Your task to perform on an android device: Go to ESPN.com Image 0: 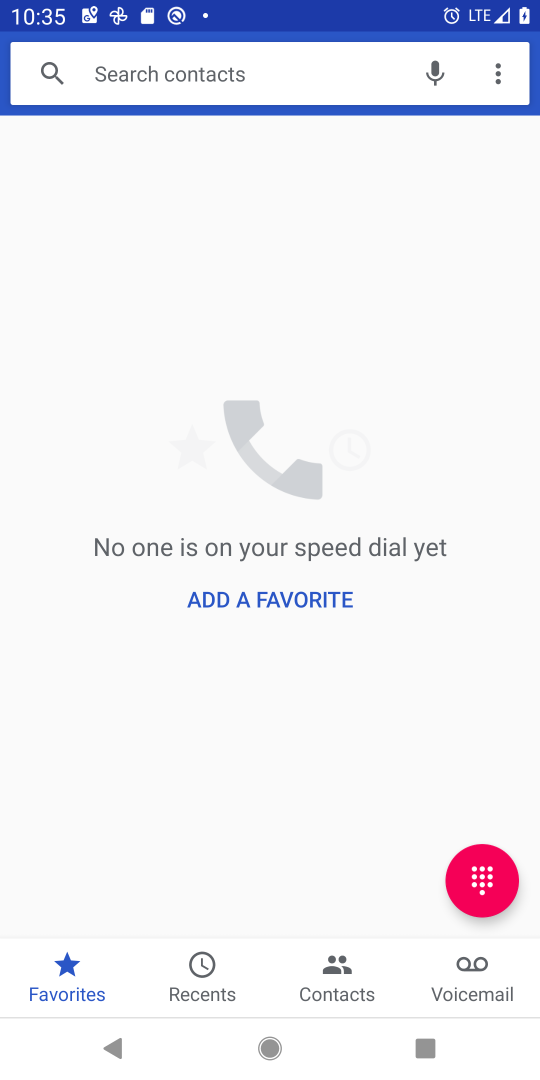
Step 0: press home button
Your task to perform on an android device: Go to ESPN.com Image 1: 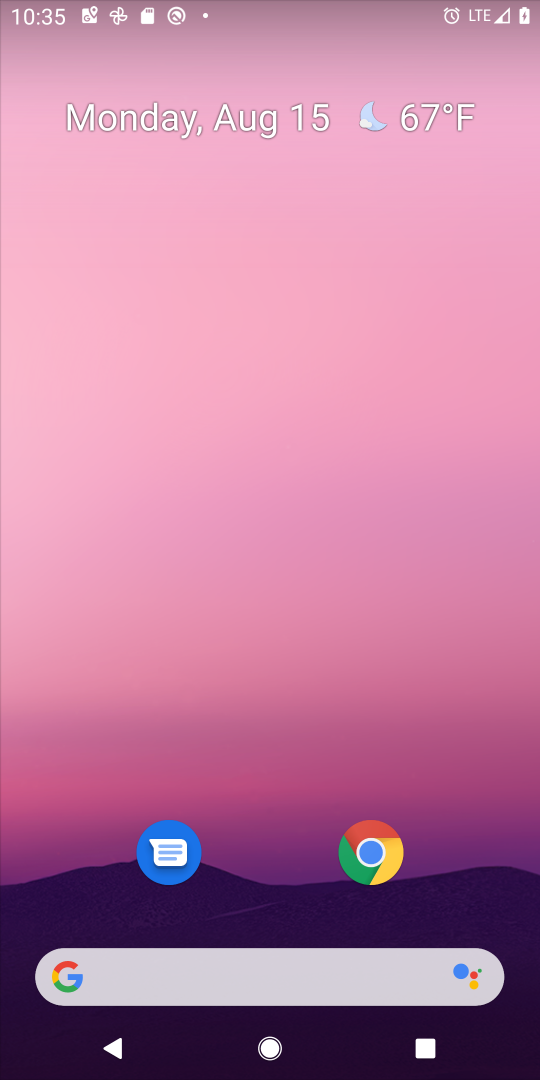
Step 1: click (371, 859)
Your task to perform on an android device: Go to ESPN.com Image 2: 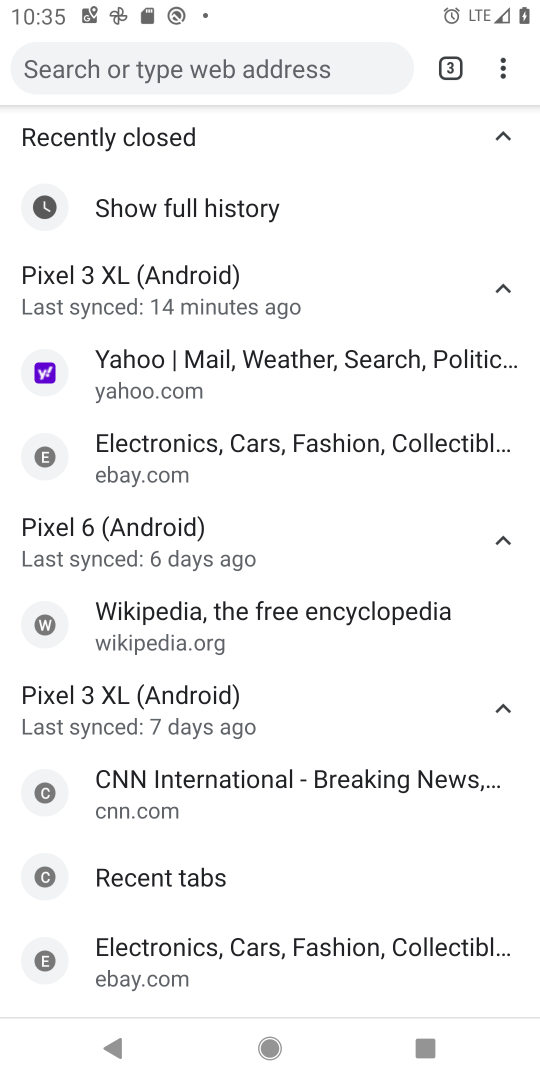
Step 2: click (336, 75)
Your task to perform on an android device: Go to ESPN.com Image 3: 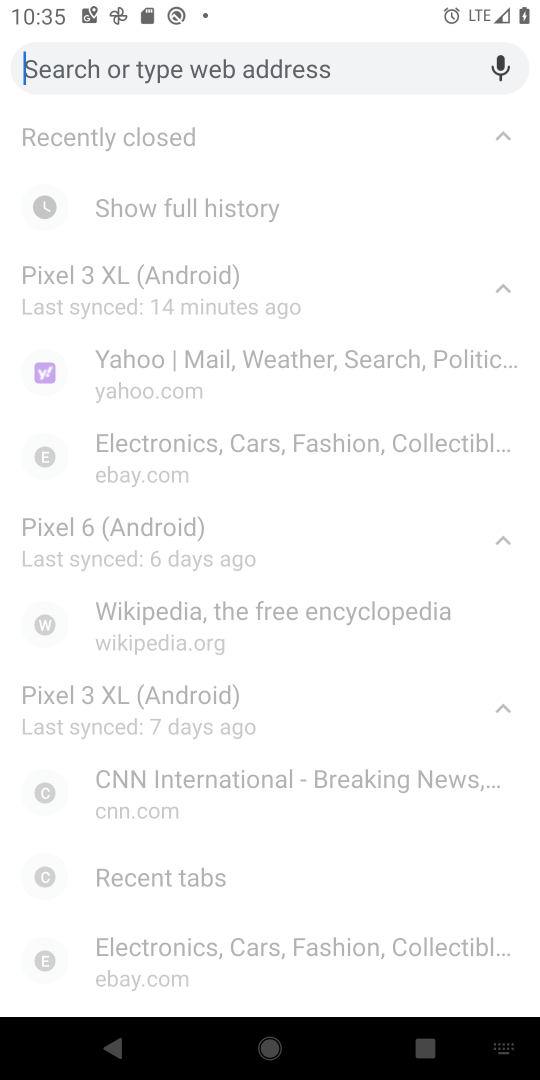
Step 3: type "ESPN.com"
Your task to perform on an android device: Go to ESPN.com Image 4: 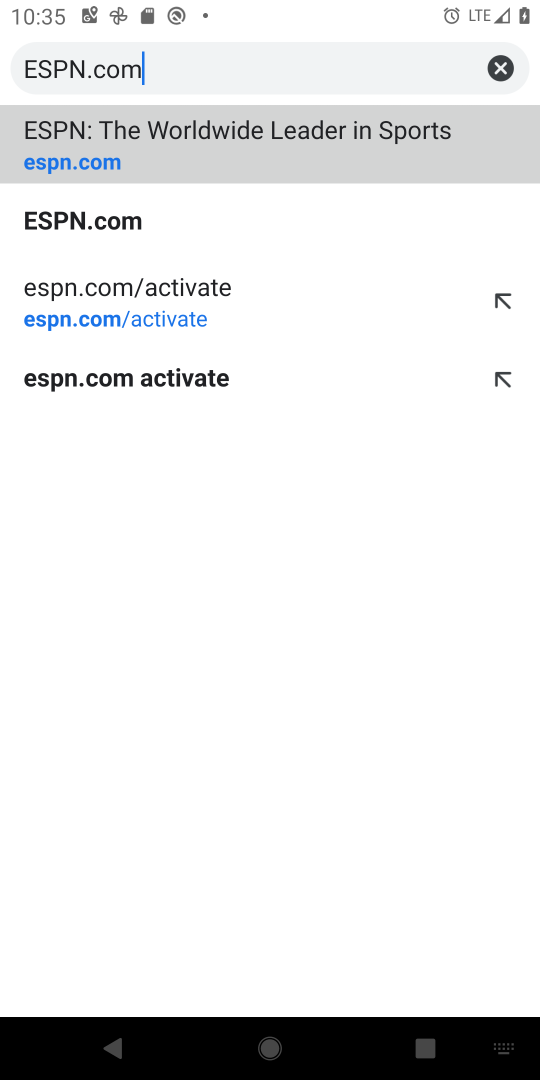
Step 4: click (109, 221)
Your task to perform on an android device: Go to ESPN.com Image 5: 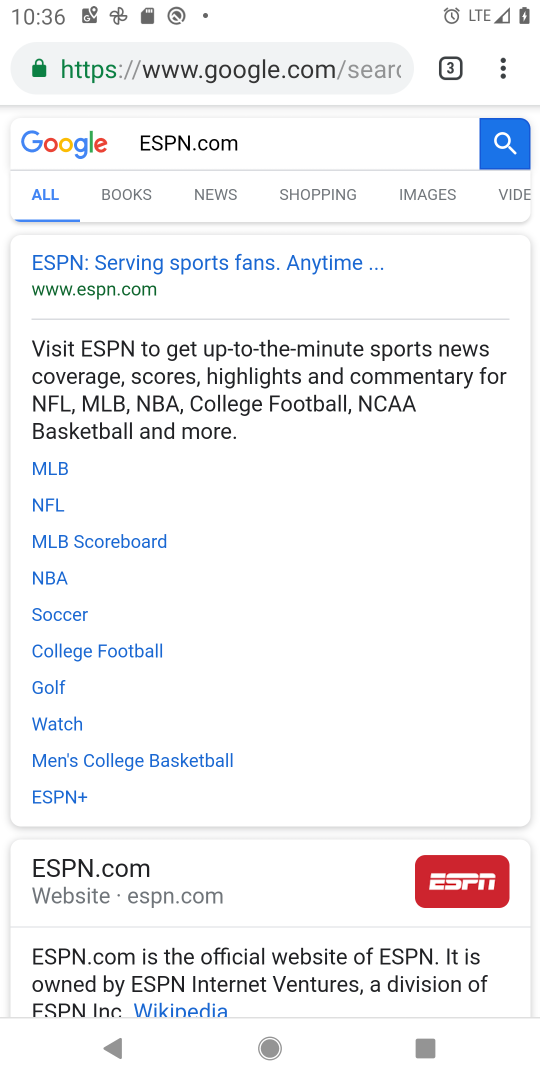
Step 5: click (139, 273)
Your task to perform on an android device: Go to ESPN.com Image 6: 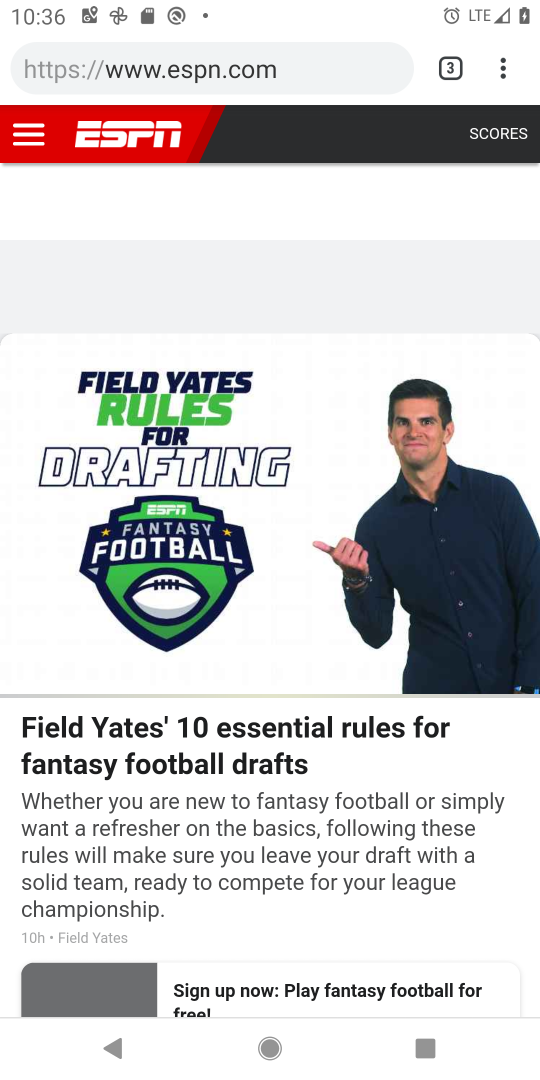
Step 6: task complete